Your task to perform on an android device: Search for Mexican restaurants on Maps Image 0: 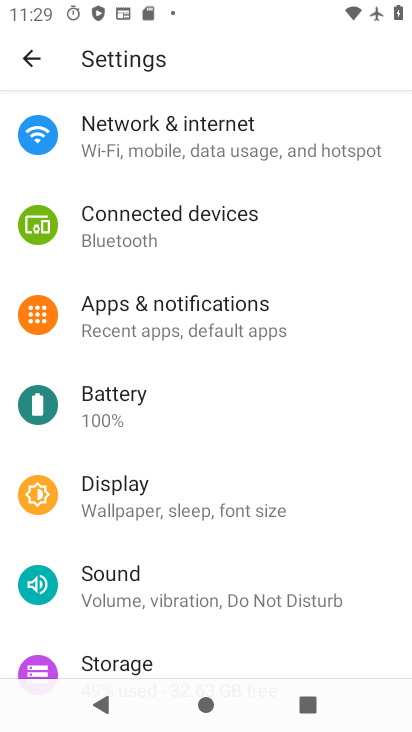
Step 0: press home button
Your task to perform on an android device: Search for Mexican restaurants on Maps Image 1: 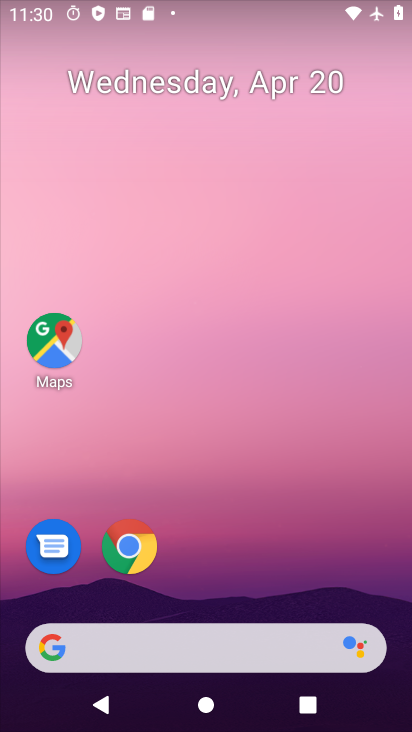
Step 1: drag from (186, 655) to (374, 84)
Your task to perform on an android device: Search for Mexican restaurants on Maps Image 2: 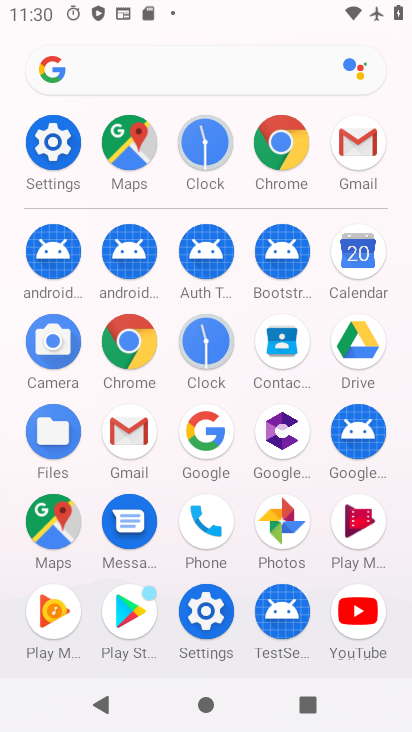
Step 2: click (134, 154)
Your task to perform on an android device: Search for Mexican restaurants on Maps Image 3: 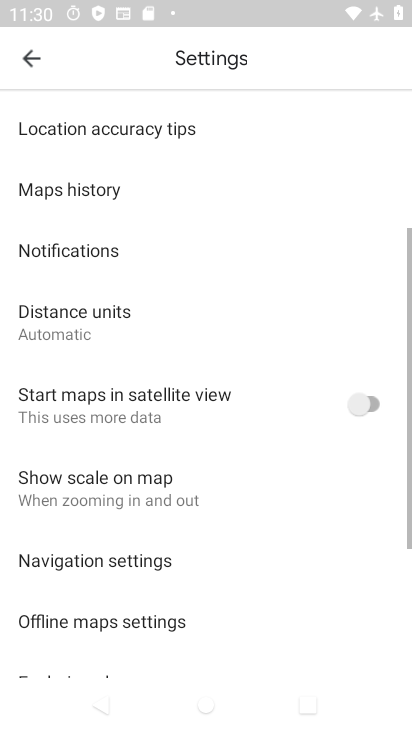
Step 3: click (34, 67)
Your task to perform on an android device: Search for Mexican restaurants on Maps Image 4: 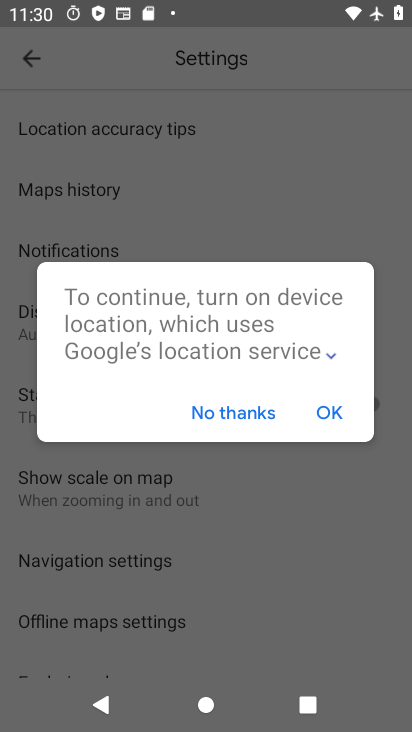
Step 4: click (324, 412)
Your task to perform on an android device: Search for Mexican restaurants on Maps Image 5: 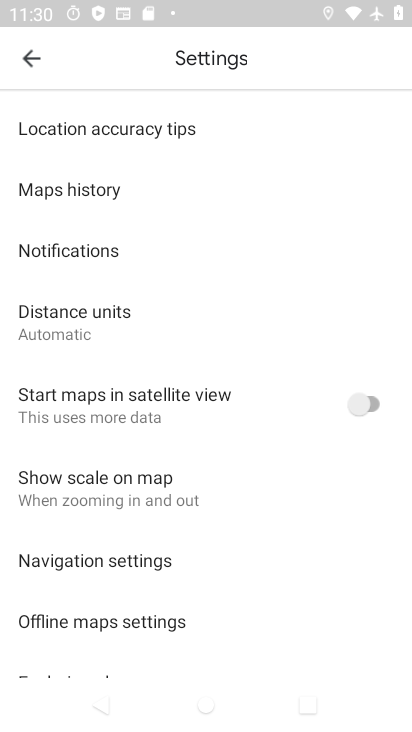
Step 5: click (30, 53)
Your task to perform on an android device: Search for Mexican restaurants on Maps Image 6: 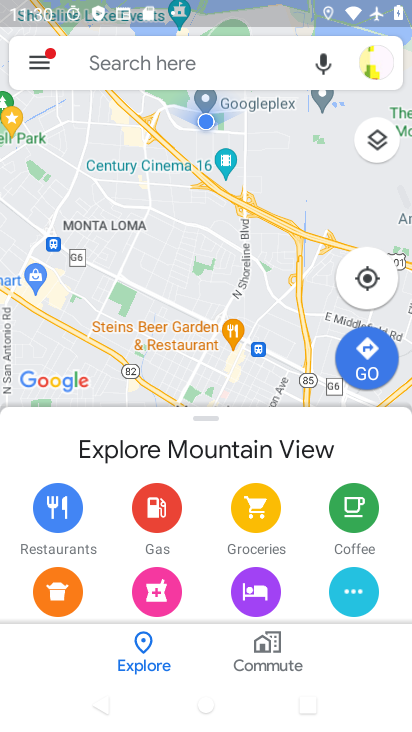
Step 6: click (161, 65)
Your task to perform on an android device: Search for Mexican restaurants on Maps Image 7: 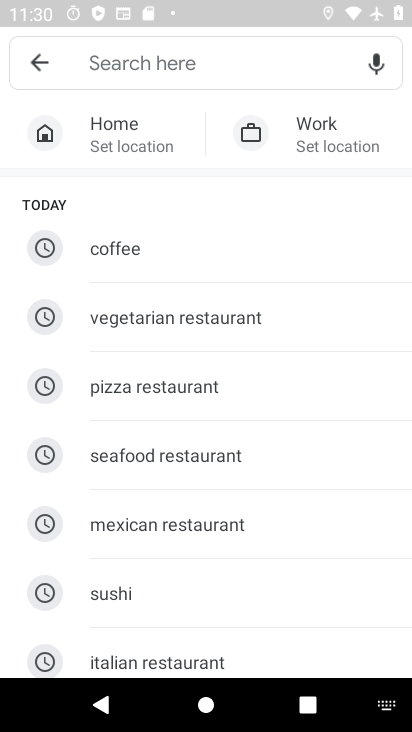
Step 7: click (142, 525)
Your task to perform on an android device: Search for Mexican restaurants on Maps Image 8: 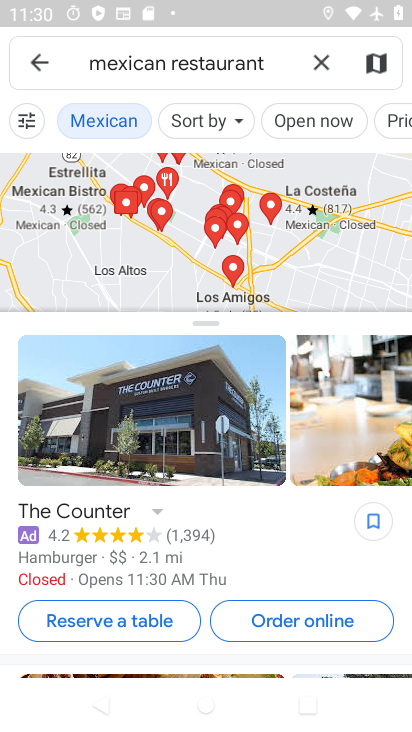
Step 8: task complete